Your task to perform on an android device: delete a single message in the gmail app Image 0: 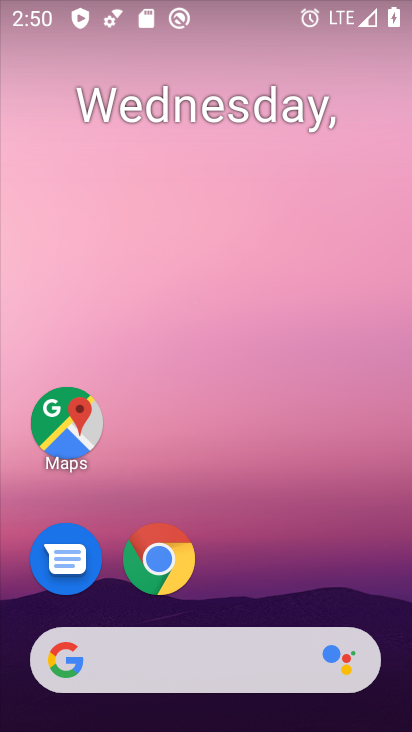
Step 0: drag from (214, 554) to (298, 0)
Your task to perform on an android device: delete a single message in the gmail app Image 1: 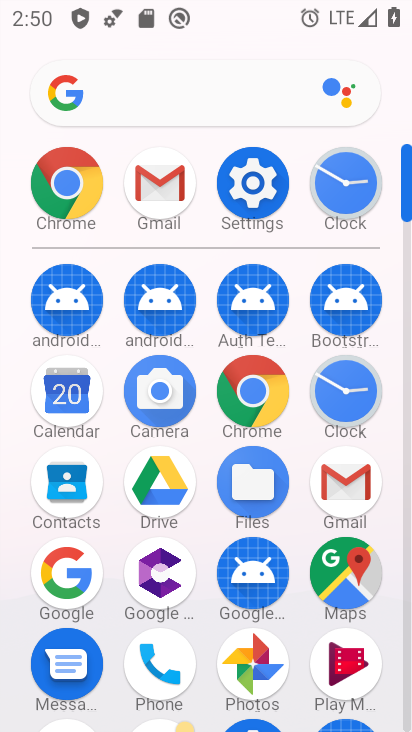
Step 1: click (165, 185)
Your task to perform on an android device: delete a single message in the gmail app Image 2: 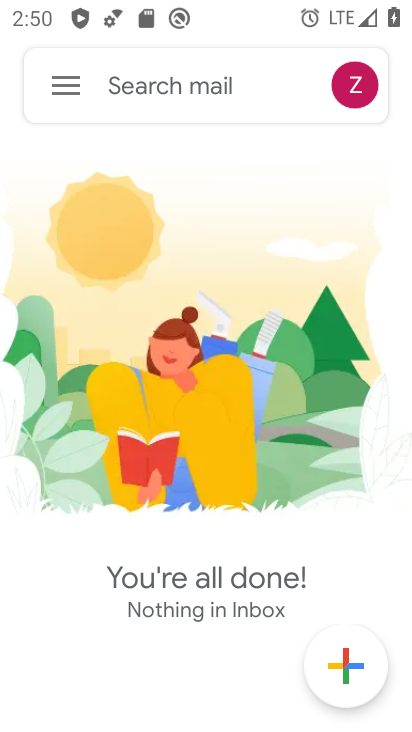
Step 2: click (65, 82)
Your task to perform on an android device: delete a single message in the gmail app Image 3: 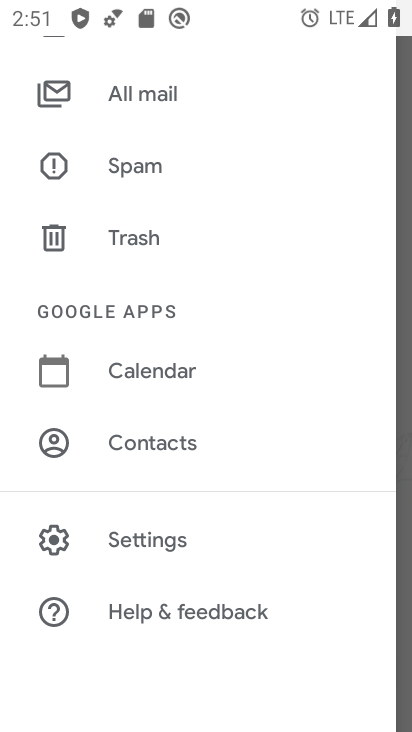
Step 3: click (151, 79)
Your task to perform on an android device: delete a single message in the gmail app Image 4: 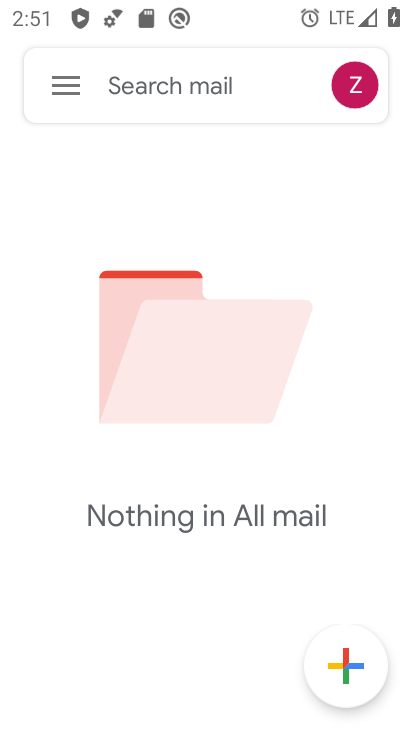
Step 4: task complete